Your task to perform on an android device: Go to settings Image 0: 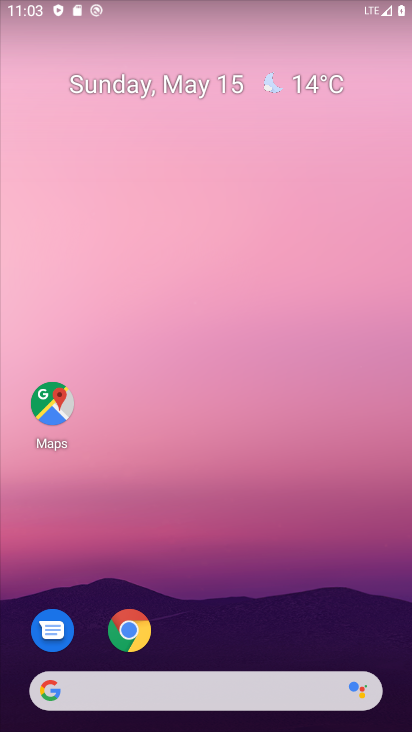
Step 0: drag from (118, 400) to (195, 264)
Your task to perform on an android device: Go to settings Image 1: 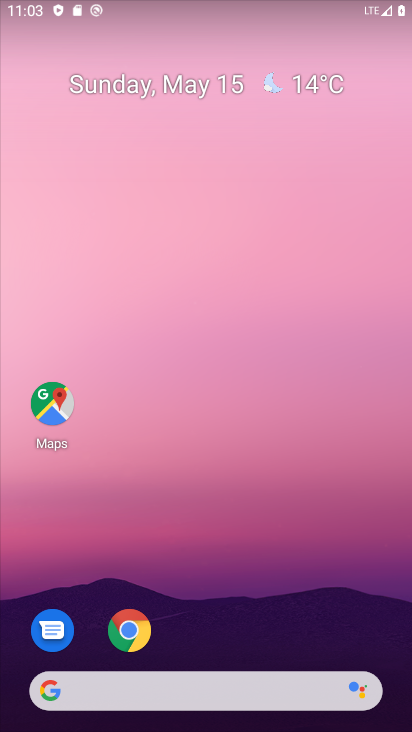
Step 1: drag from (69, 535) to (254, 256)
Your task to perform on an android device: Go to settings Image 2: 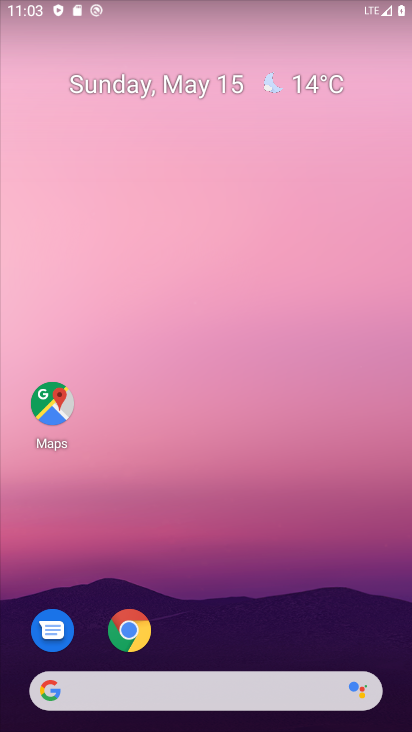
Step 2: drag from (145, 412) to (330, 104)
Your task to perform on an android device: Go to settings Image 3: 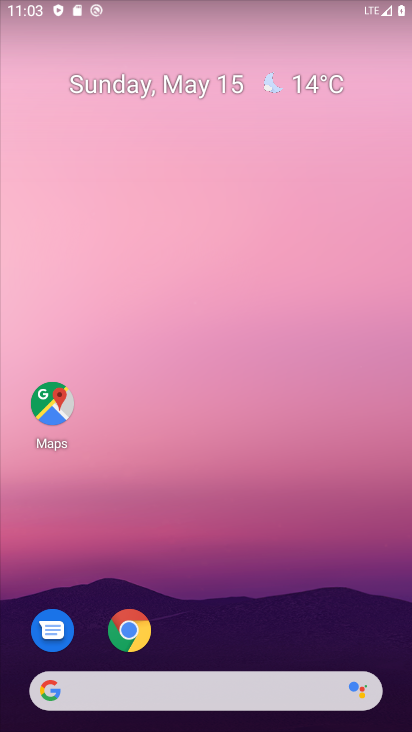
Step 3: drag from (58, 609) to (330, 125)
Your task to perform on an android device: Go to settings Image 4: 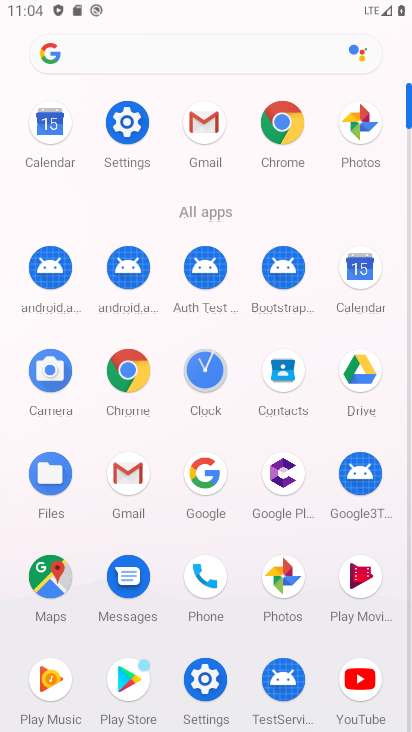
Step 4: click (118, 119)
Your task to perform on an android device: Go to settings Image 5: 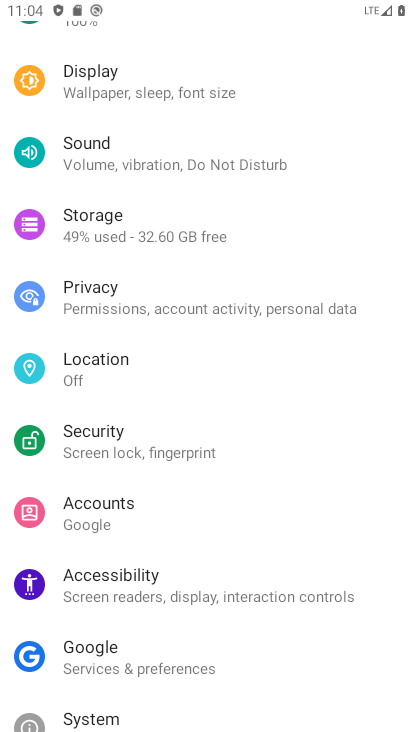
Step 5: task complete